Your task to perform on an android device: turn on showing notifications on the lock screen Image 0: 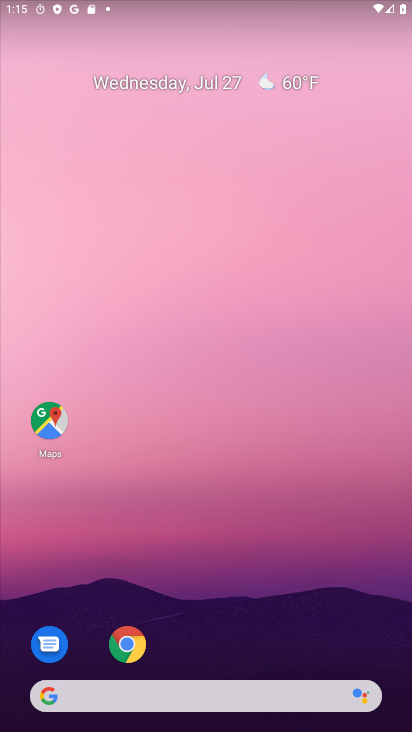
Step 0: drag from (208, 601) to (266, 22)
Your task to perform on an android device: turn on showing notifications on the lock screen Image 1: 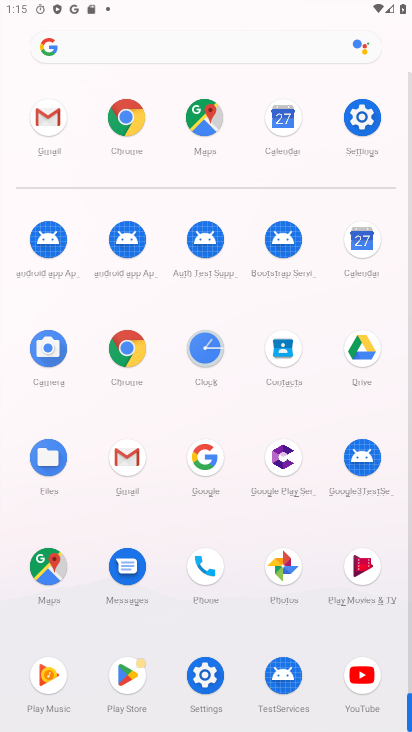
Step 1: drag from (234, 569) to (224, 243)
Your task to perform on an android device: turn on showing notifications on the lock screen Image 2: 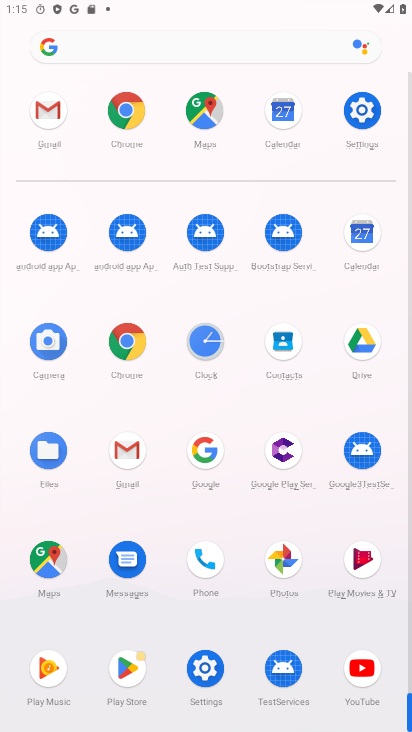
Step 2: click (199, 670)
Your task to perform on an android device: turn on showing notifications on the lock screen Image 3: 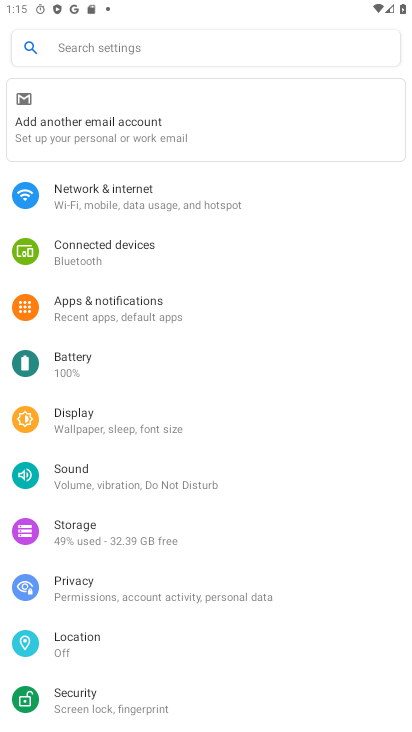
Step 3: click (176, 302)
Your task to perform on an android device: turn on showing notifications on the lock screen Image 4: 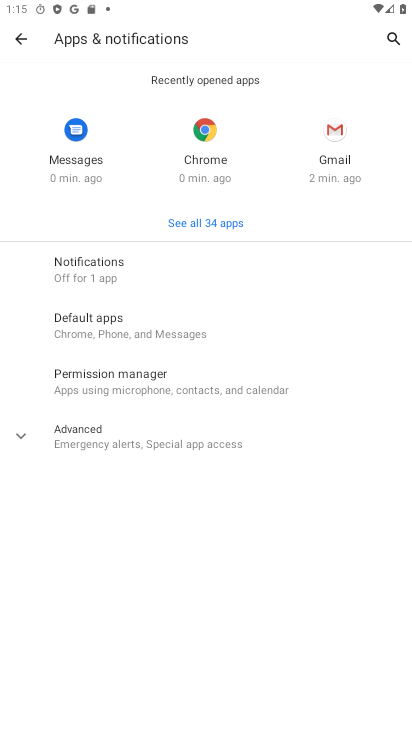
Step 4: click (132, 262)
Your task to perform on an android device: turn on showing notifications on the lock screen Image 5: 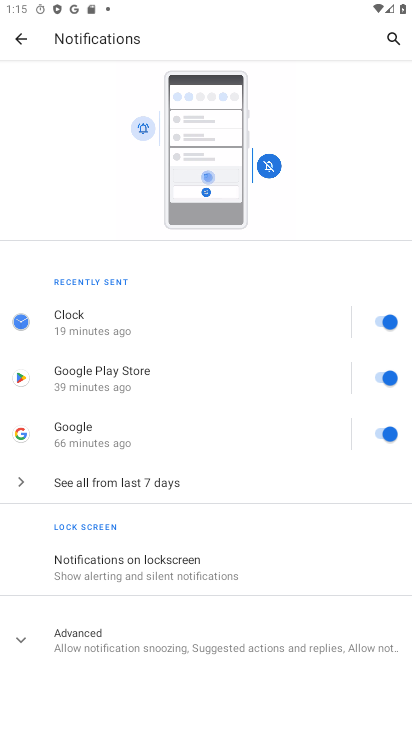
Step 5: drag from (199, 266) to (195, 113)
Your task to perform on an android device: turn on showing notifications on the lock screen Image 6: 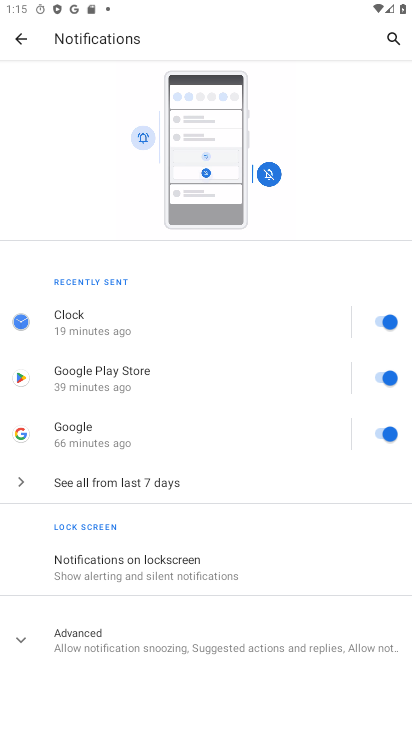
Step 6: drag from (193, 620) to (225, 178)
Your task to perform on an android device: turn on showing notifications on the lock screen Image 7: 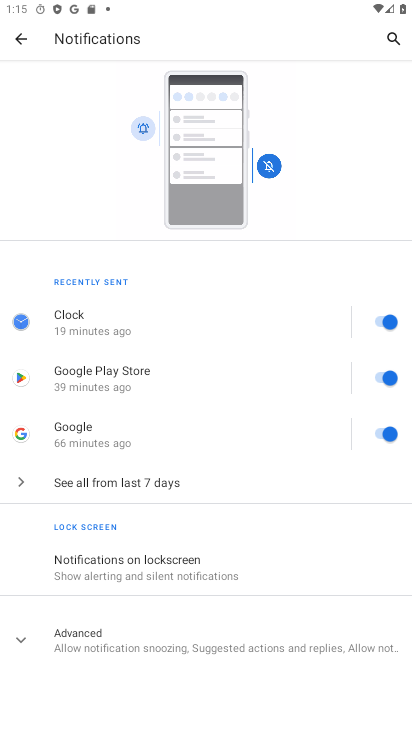
Step 7: click (169, 651)
Your task to perform on an android device: turn on showing notifications on the lock screen Image 8: 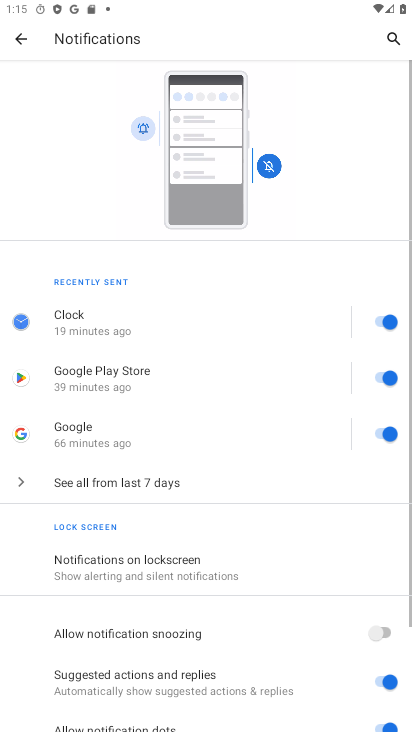
Step 8: drag from (223, 602) to (258, 185)
Your task to perform on an android device: turn on showing notifications on the lock screen Image 9: 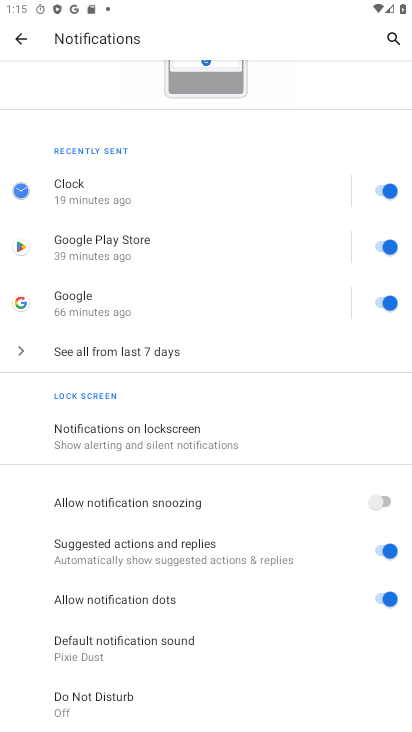
Step 9: click (188, 436)
Your task to perform on an android device: turn on showing notifications on the lock screen Image 10: 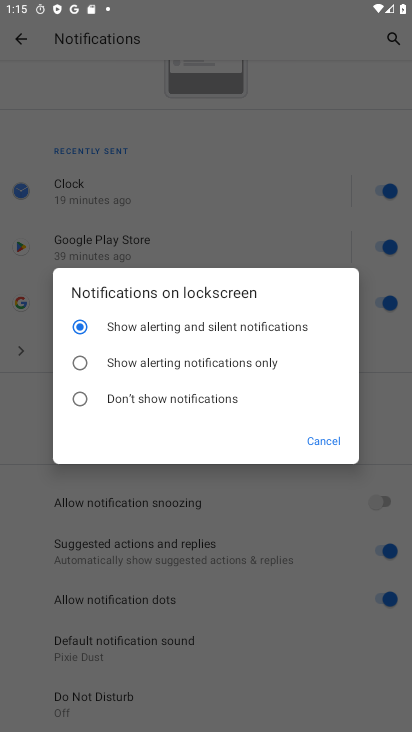
Step 10: click (81, 367)
Your task to perform on an android device: turn on showing notifications on the lock screen Image 11: 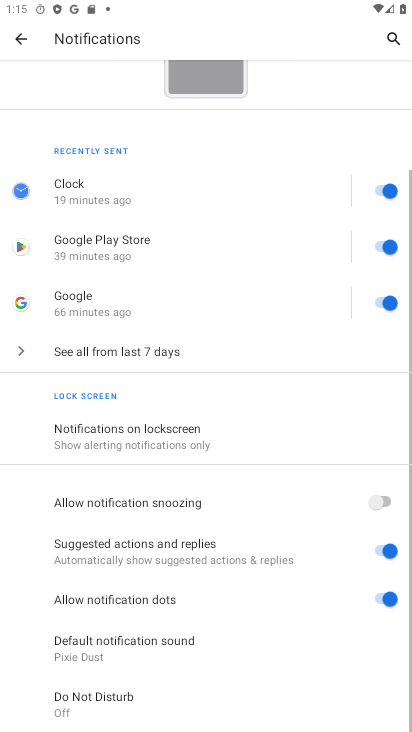
Step 11: task complete